Your task to perform on an android device: delete the emails in spam in the gmail app Image 0: 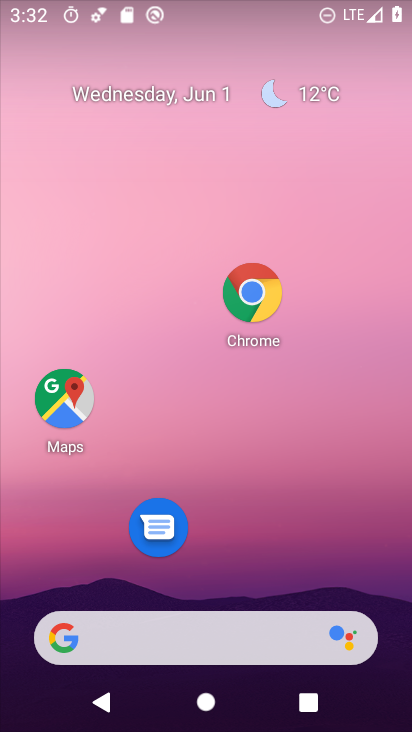
Step 0: drag from (321, 414) to (377, 92)
Your task to perform on an android device: delete the emails in spam in the gmail app Image 1: 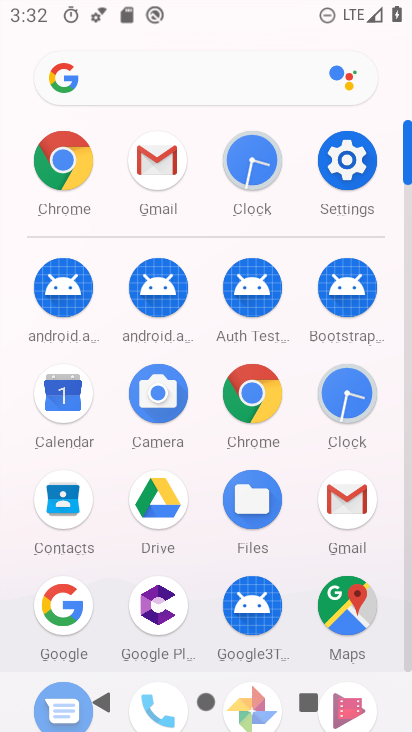
Step 1: click (352, 509)
Your task to perform on an android device: delete the emails in spam in the gmail app Image 2: 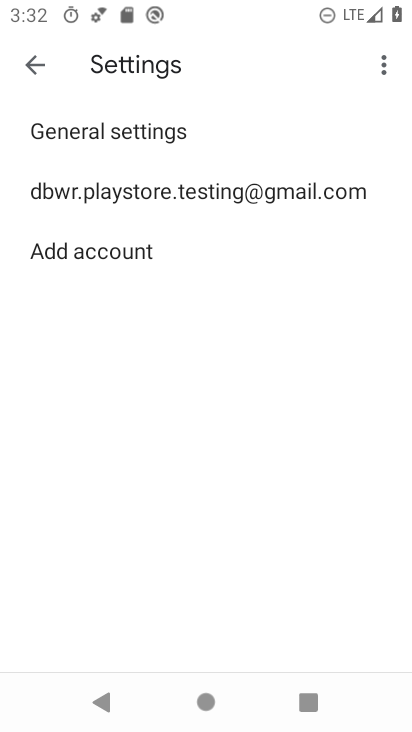
Step 2: click (30, 66)
Your task to perform on an android device: delete the emails in spam in the gmail app Image 3: 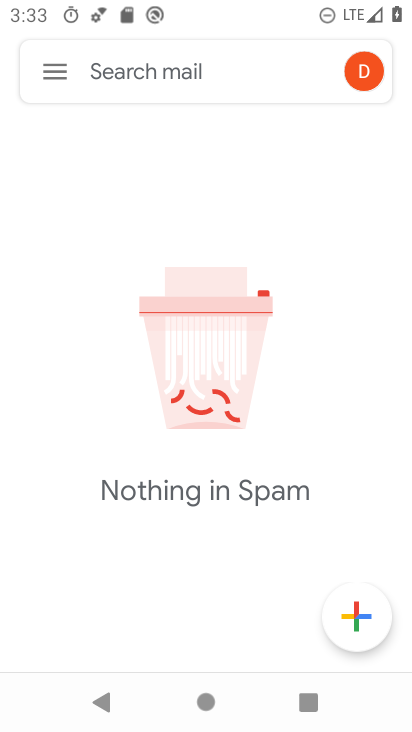
Step 3: click (47, 77)
Your task to perform on an android device: delete the emails in spam in the gmail app Image 4: 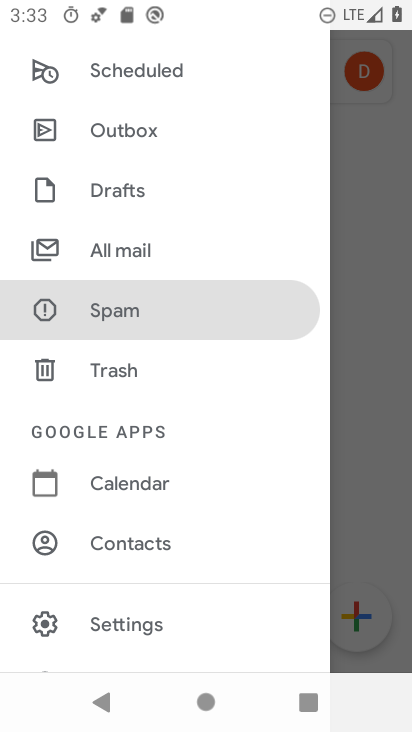
Step 4: click (160, 252)
Your task to perform on an android device: delete the emails in spam in the gmail app Image 5: 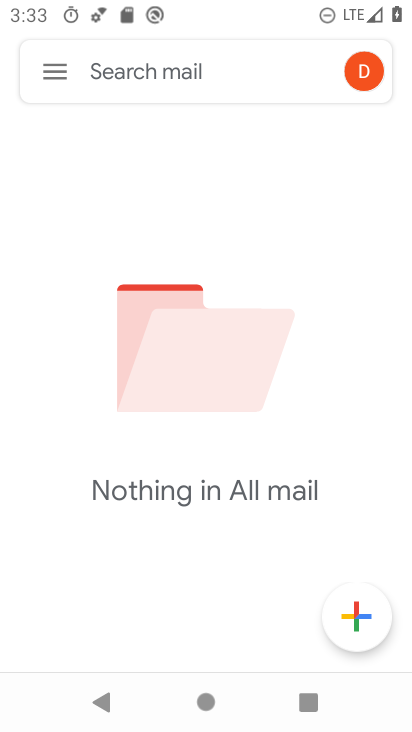
Step 5: task complete